Your task to perform on an android device: turn notification dots off Image 0: 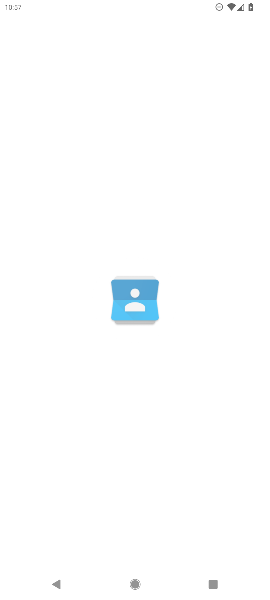
Step 0: click (221, 358)
Your task to perform on an android device: turn notification dots off Image 1: 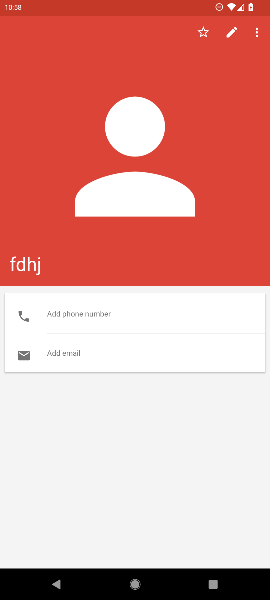
Step 1: press home button
Your task to perform on an android device: turn notification dots off Image 2: 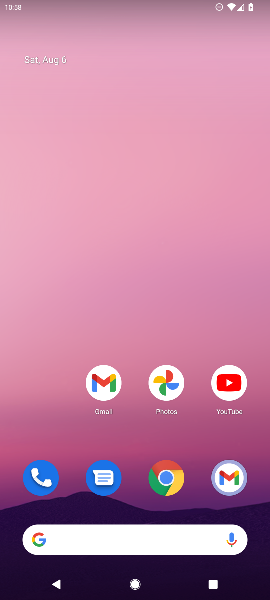
Step 2: drag from (134, 517) to (141, 62)
Your task to perform on an android device: turn notification dots off Image 3: 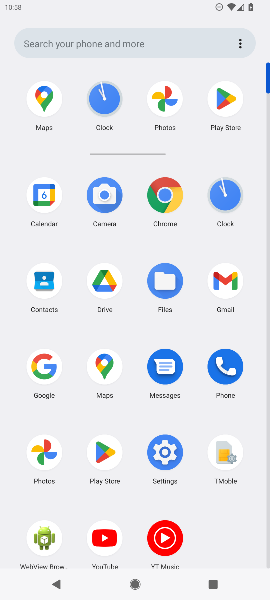
Step 3: click (166, 452)
Your task to perform on an android device: turn notification dots off Image 4: 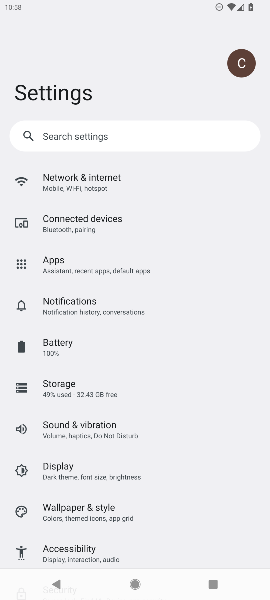
Step 4: click (49, 295)
Your task to perform on an android device: turn notification dots off Image 5: 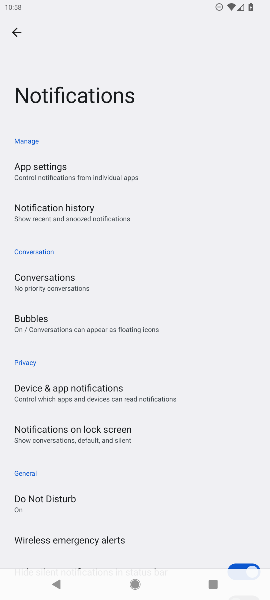
Step 5: drag from (124, 465) to (155, 217)
Your task to perform on an android device: turn notification dots off Image 6: 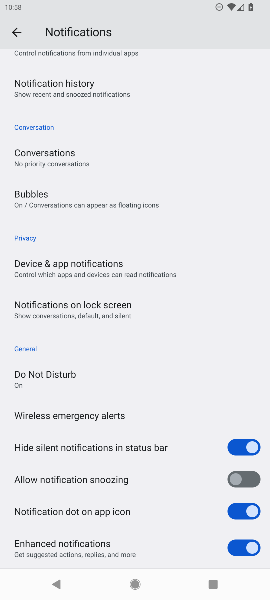
Step 6: click (255, 515)
Your task to perform on an android device: turn notification dots off Image 7: 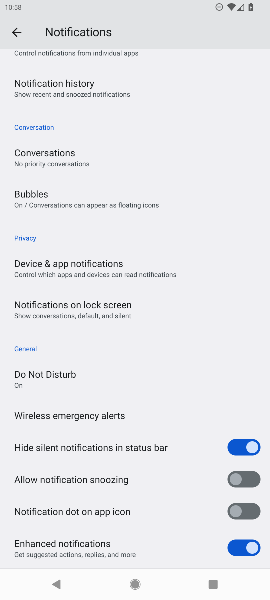
Step 7: task complete